Your task to perform on an android device: turn off location Image 0: 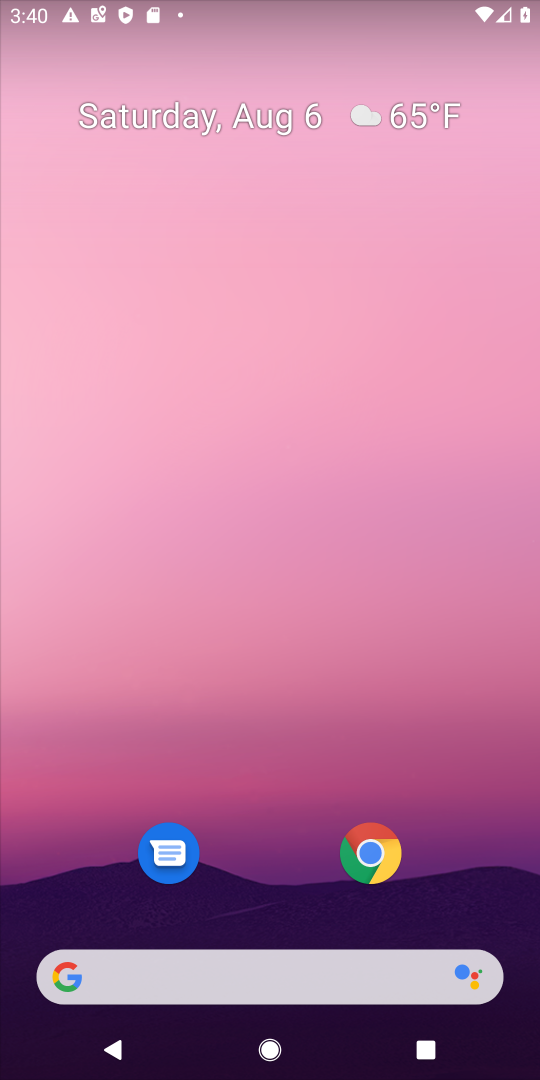
Step 0: drag from (231, 907) to (288, 25)
Your task to perform on an android device: turn off location Image 1: 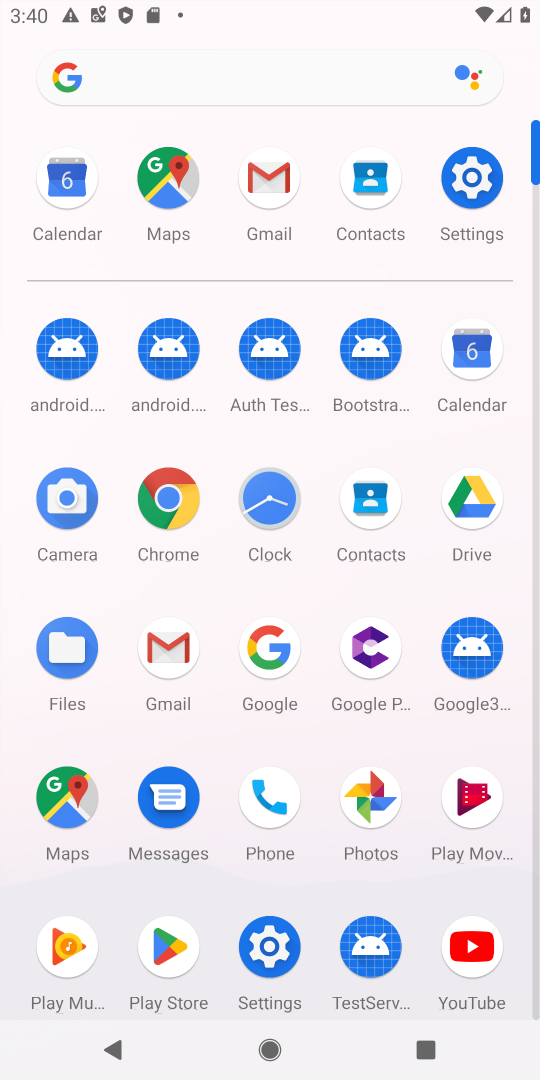
Step 1: click (471, 175)
Your task to perform on an android device: turn off location Image 2: 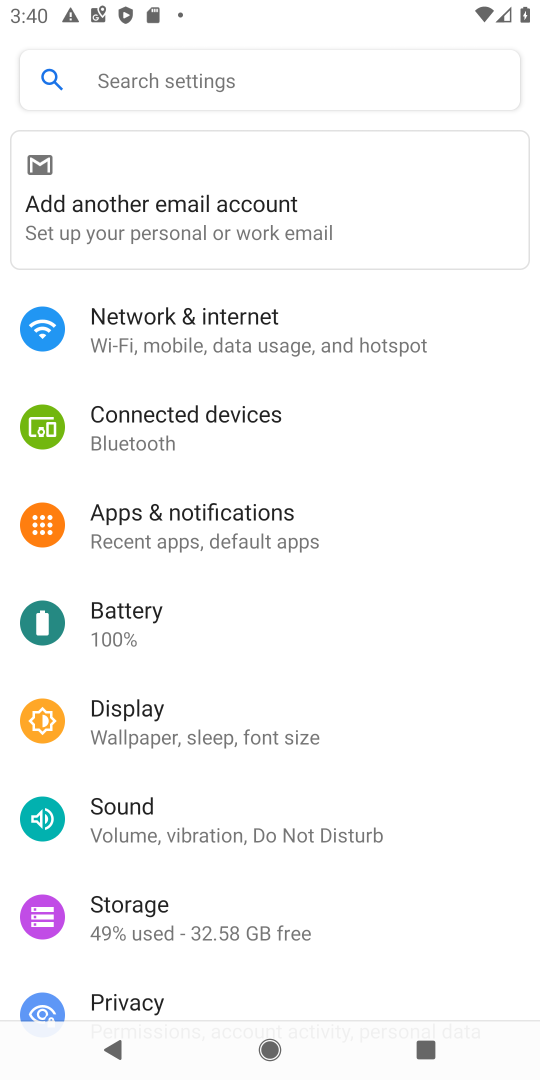
Step 2: drag from (210, 929) to (352, 263)
Your task to perform on an android device: turn off location Image 3: 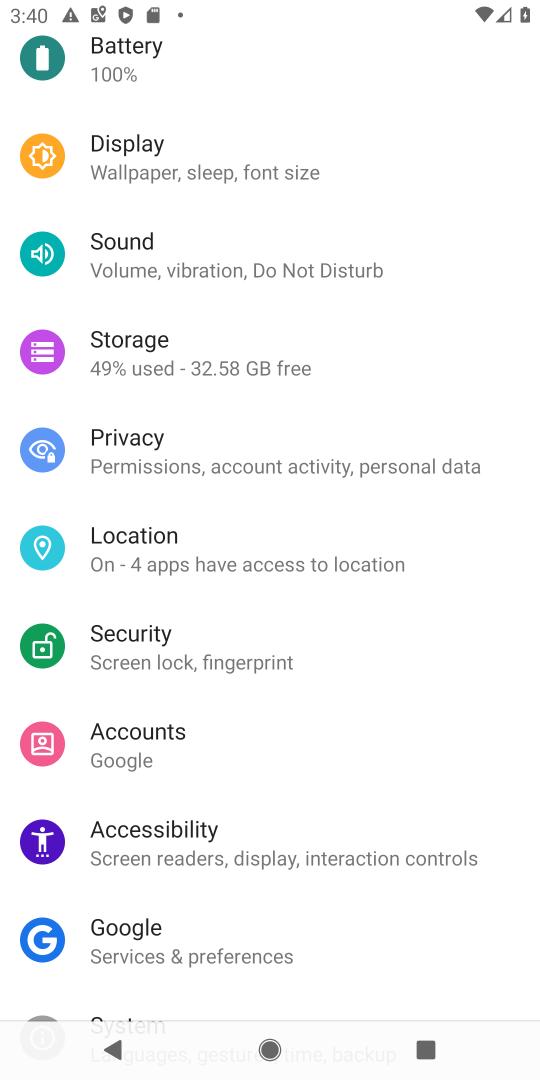
Step 3: click (220, 553)
Your task to perform on an android device: turn off location Image 4: 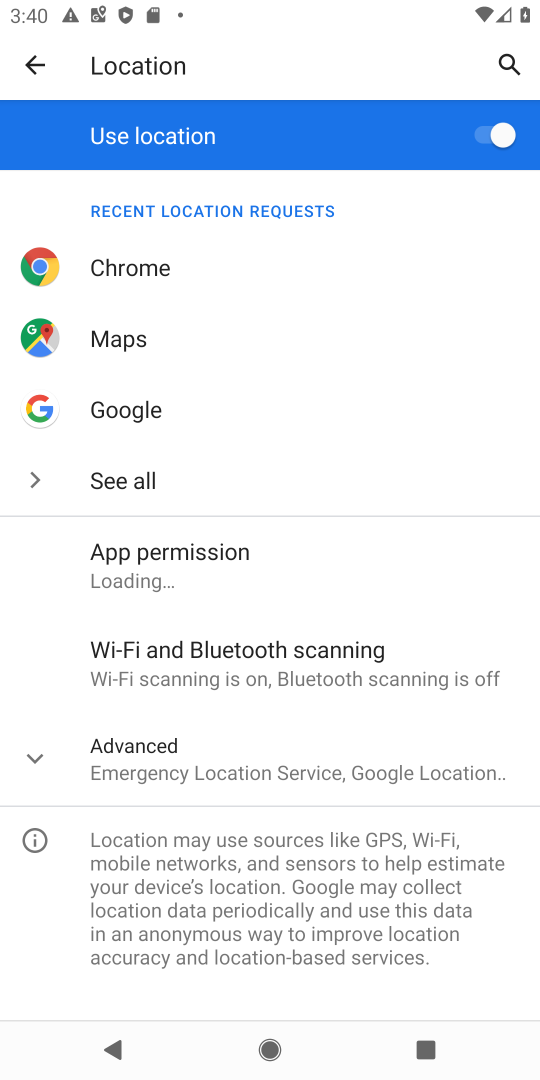
Step 4: click (503, 136)
Your task to perform on an android device: turn off location Image 5: 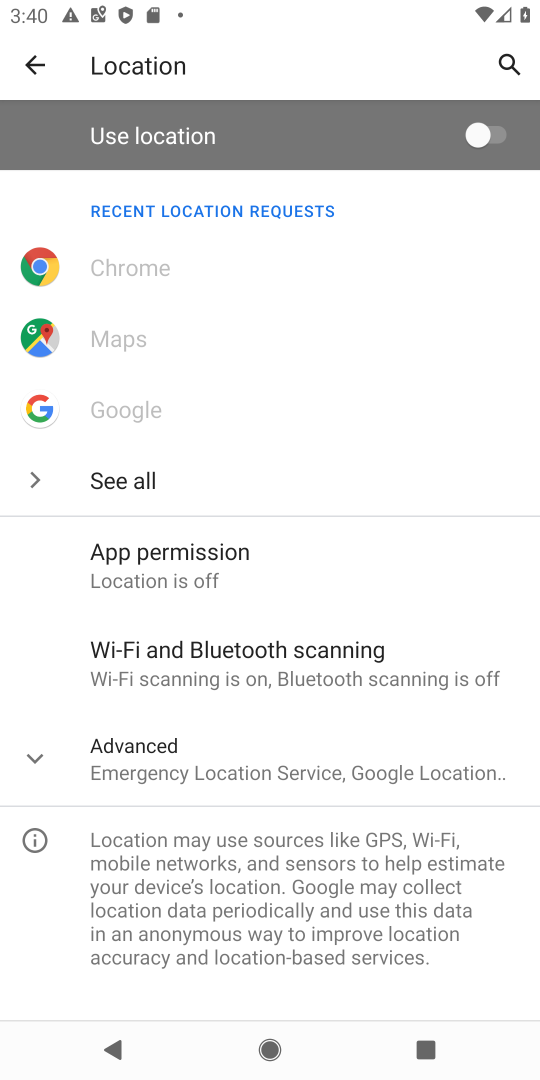
Step 5: task complete